Your task to perform on an android device: show emergency info Image 0: 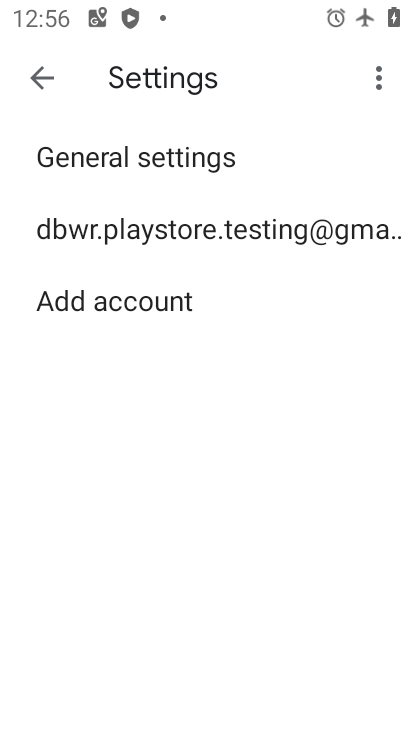
Step 0: press home button
Your task to perform on an android device: show emergency info Image 1: 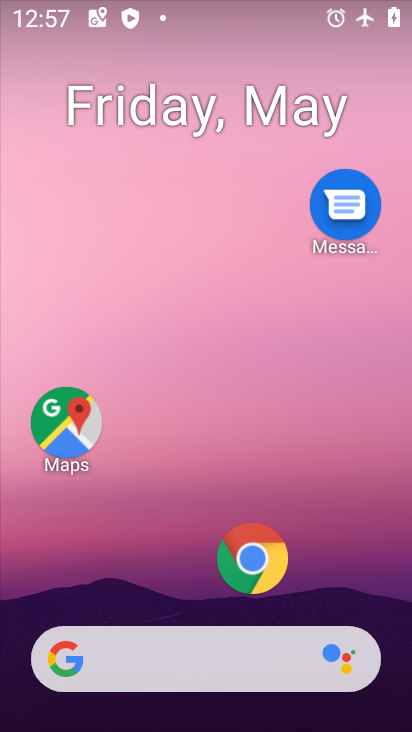
Step 1: drag from (112, 618) to (84, 139)
Your task to perform on an android device: show emergency info Image 2: 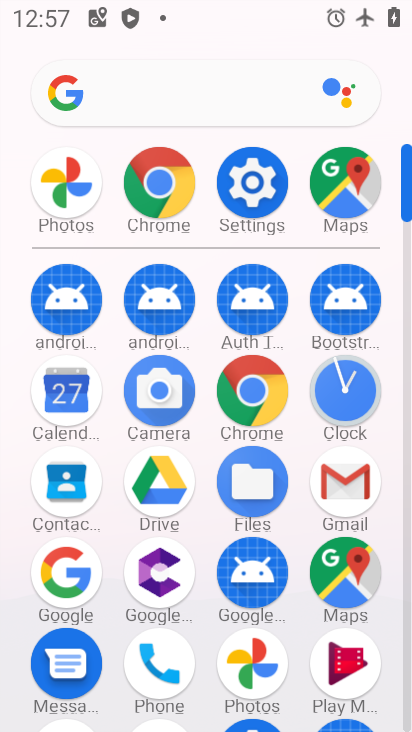
Step 2: click (269, 208)
Your task to perform on an android device: show emergency info Image 3: 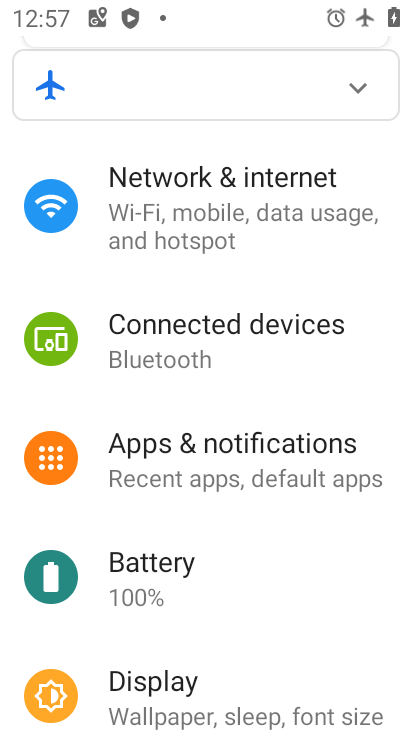
Step 3: drag from (201, 540) to (173, 290)
Your task to perform on an android device: show emergency info Image 4: 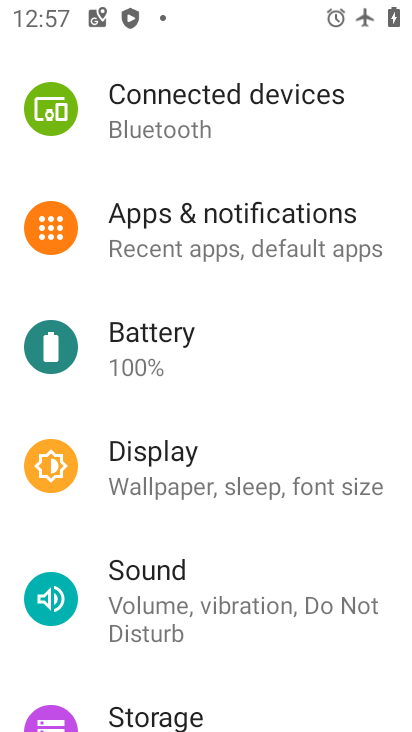
Step 4: drag from (223, 537) to (213, 248)
Your task to perform on an android device: show emergency info Image 5: 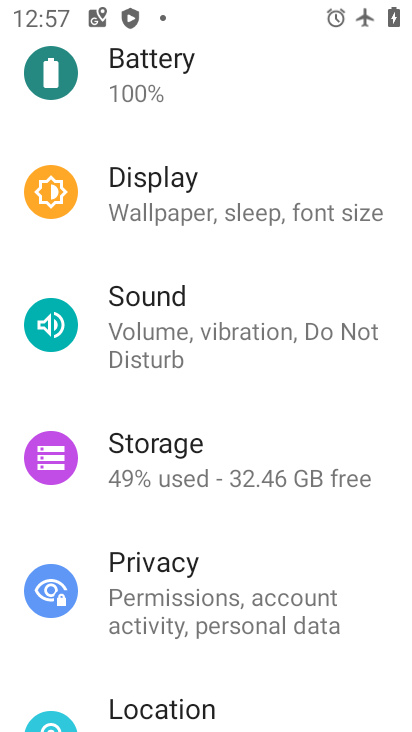
Step 5: drag from (233, 494) to (229, 246)
Your task to perform on an android device: show emergency info Image 6: 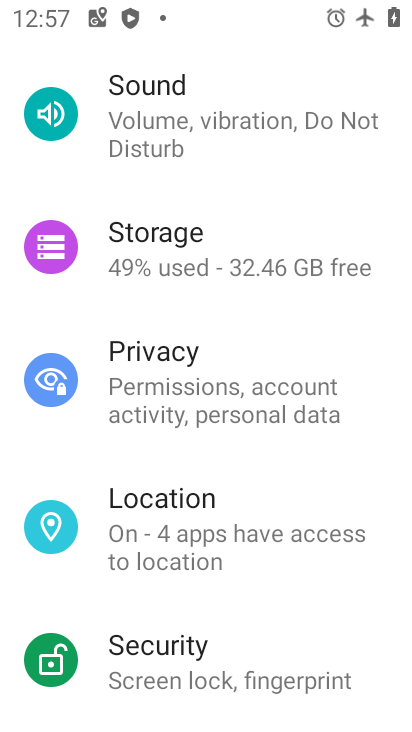
Step 6: drag from (228, 542) to (248, 274)
Your task to perform on an android device: show emergency info Image 7: 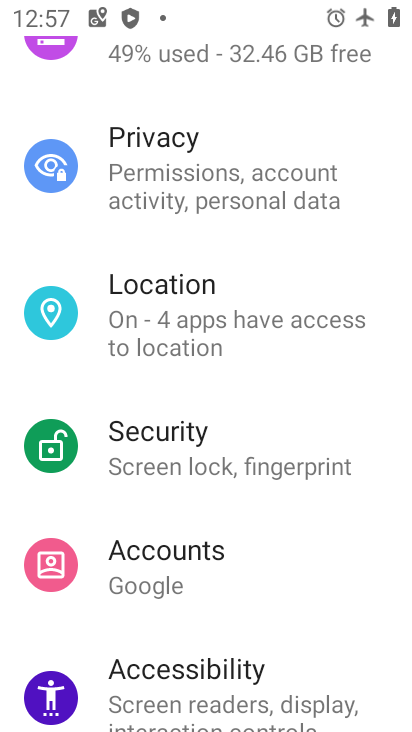
Step 7: drag from (228, 544) to (188, 299)
Your task to perform on an android device: show emergency info Image 8: 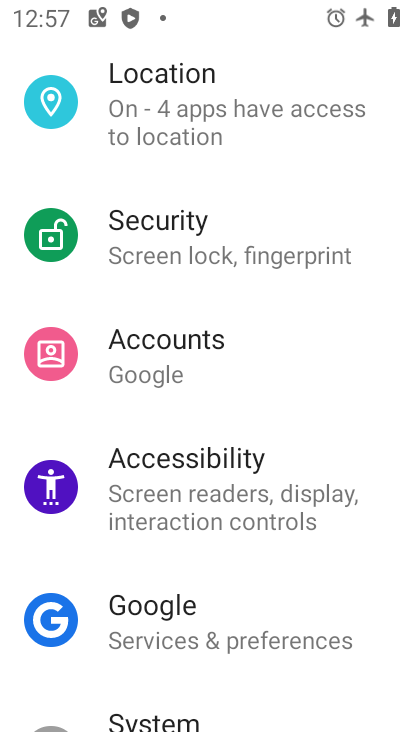
Step 8: drag from (178, 538) to (154, 210)
Your task to perform on an android device: show emergency info Image 9: 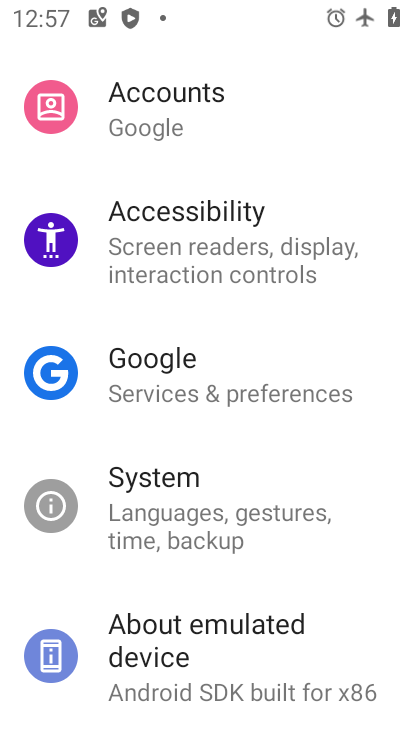
Step 9: drag from (196, 550) to (226, 226)
Your task to perform on an android device: show emergency info Image 10: 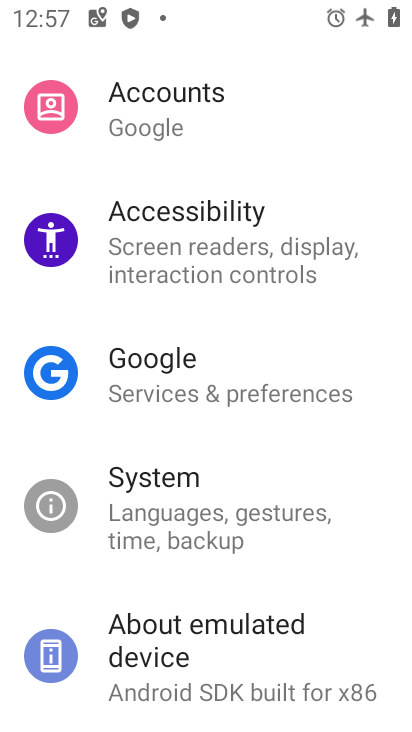
Step 10: click (211, 665)
Your task to perform on an android device: show emergency info Image 11: 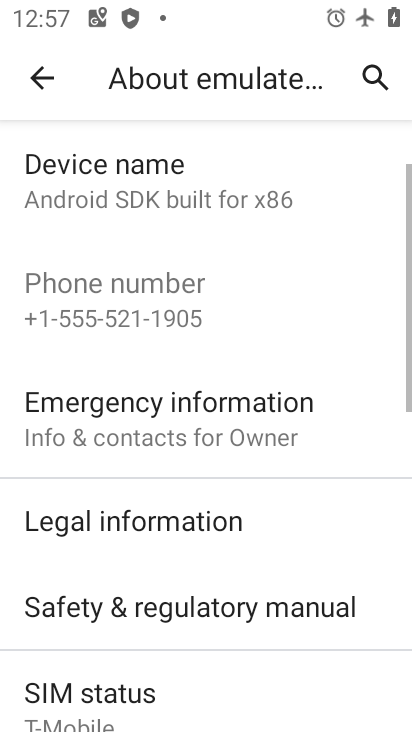
Step 11: click (198, 420)
Your task to perform on an android device: show emergency info Image 12: 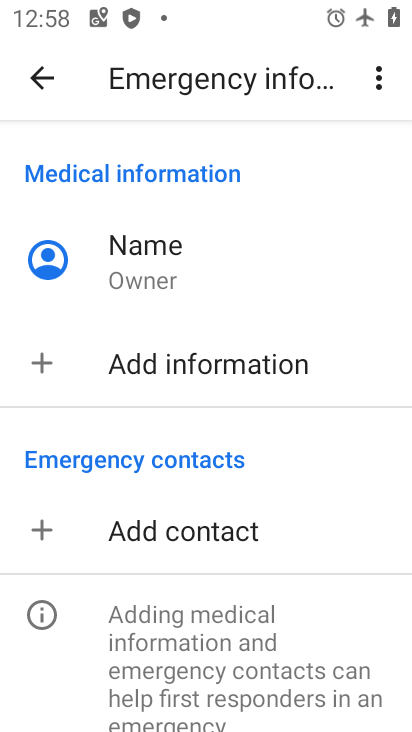
Step 12: task complete